Your task to perform on an android device: See recent photos Image 0: 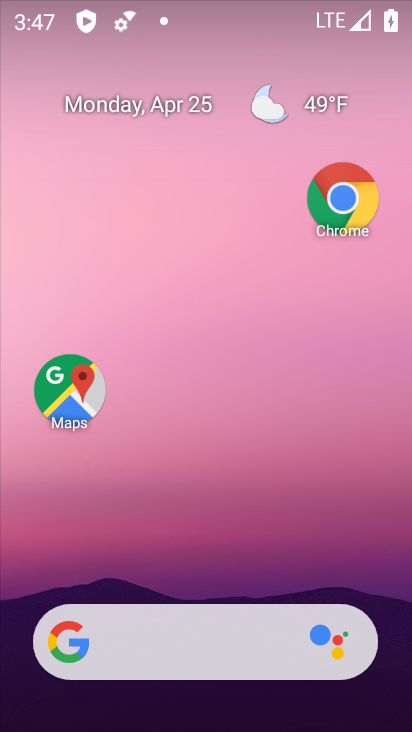
Step 0: drag from (200, 661) to (317, 165)
Your task to perform on an android device: See recent photos Image 1: 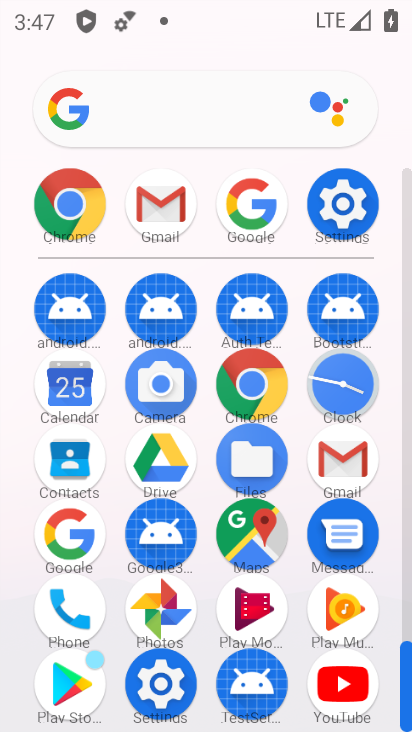
Step 1: click (165, 612)
Your task to perform on an android device: See recent photos Image 2: 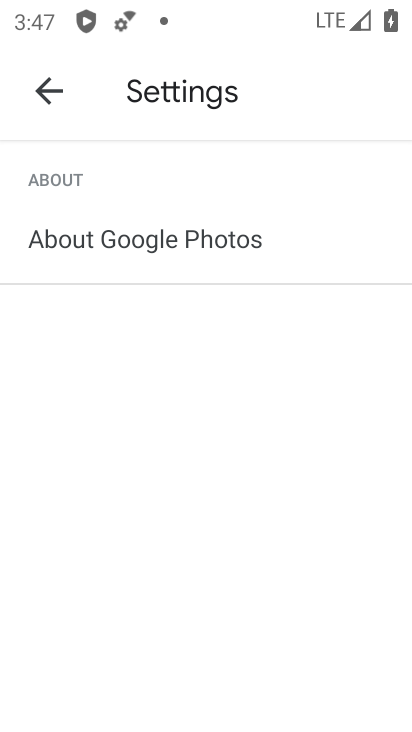
Step 2: click (51, 95)
Your task to perform on an android device: See recent photos Image 3: 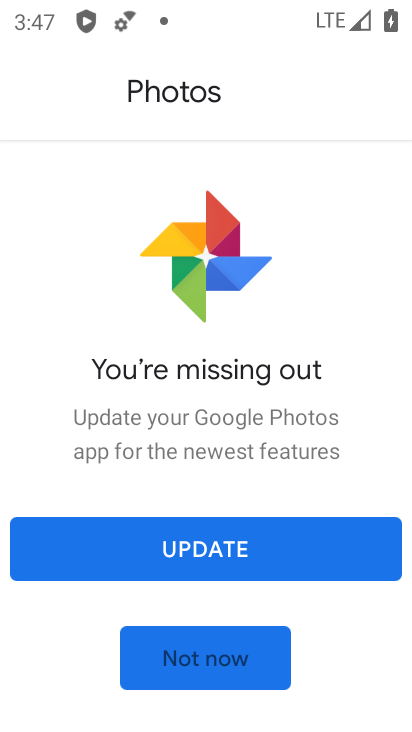
Step 3: click (220, 556)
Your task to perform on an android device: See recent photos Image 4: 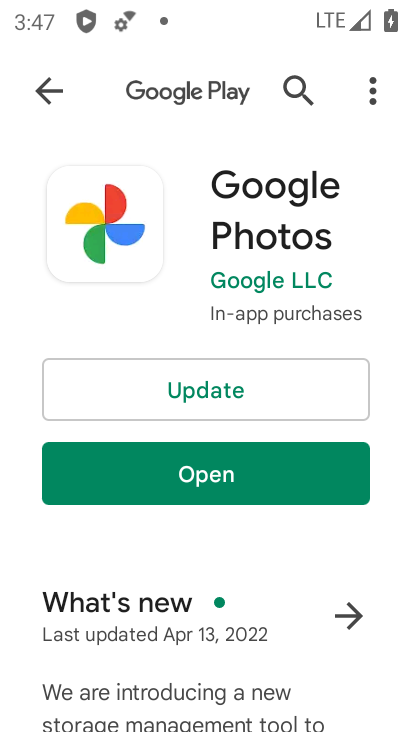
Step 4: click (217, 480)
Your task to perform on an android device: See recent photos Image 5: 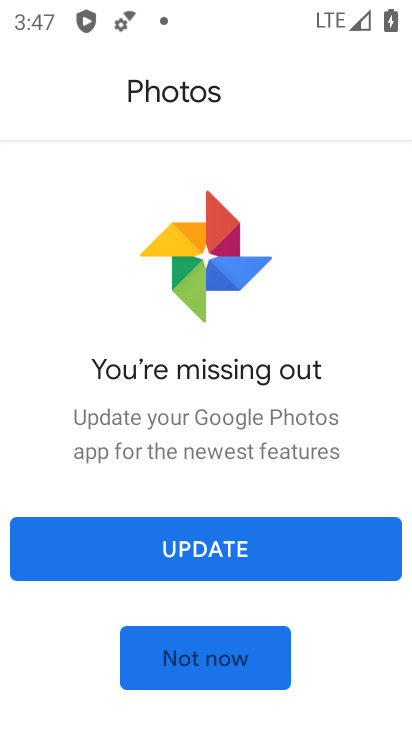
Step 5: click (205, 547)
Your task to perform on an android device: See recent photos Image 6: 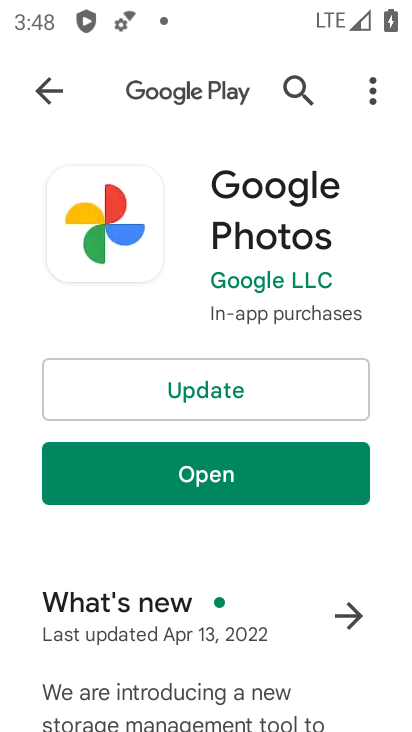
Step 6: click (242, 371)
Your task to perform on an android device: See recent photos Image 7: 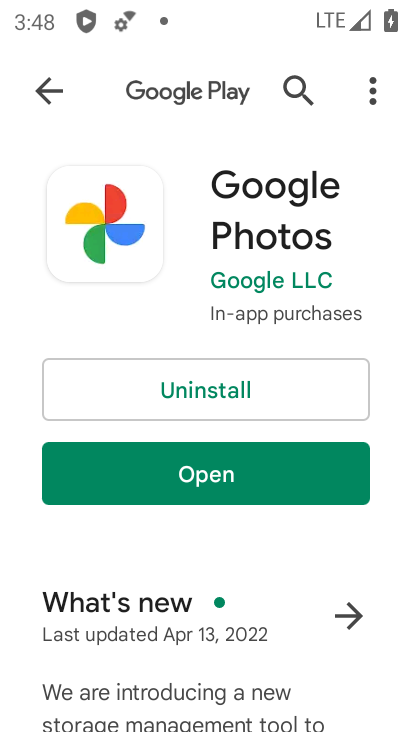
Step 7: click (173, 467)
Your task to perform on an android device: See recent photos Image 8: 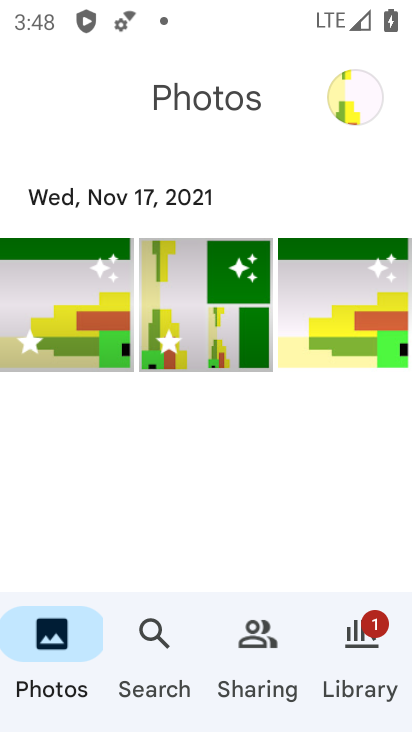
Step 8: click (354, 675)
Your task to perform on an android device: See recent photos Image 9: 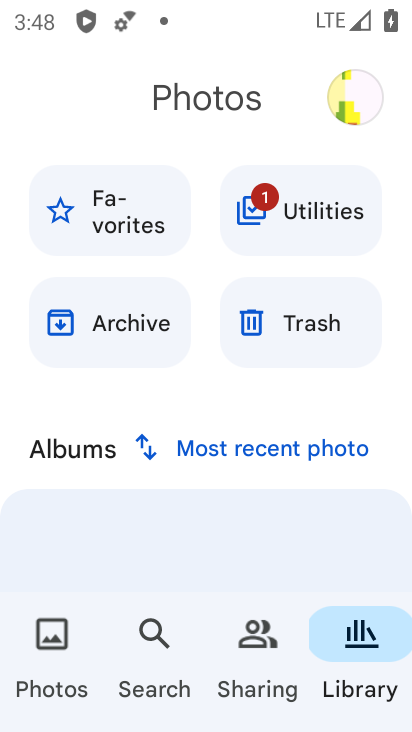
Step 9: task complete